Your task to perform on an android device: Show me productivity apps on the Play Store Image 0: 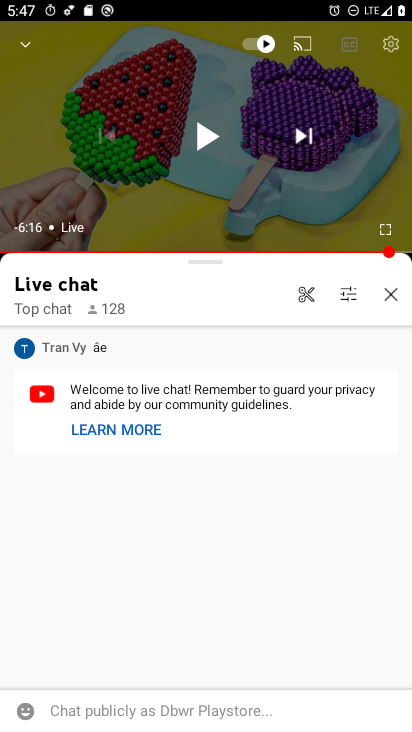
Step 0: press home button
Your task to perform on an android device: Show me productivity apps on the Play Store Image 1: 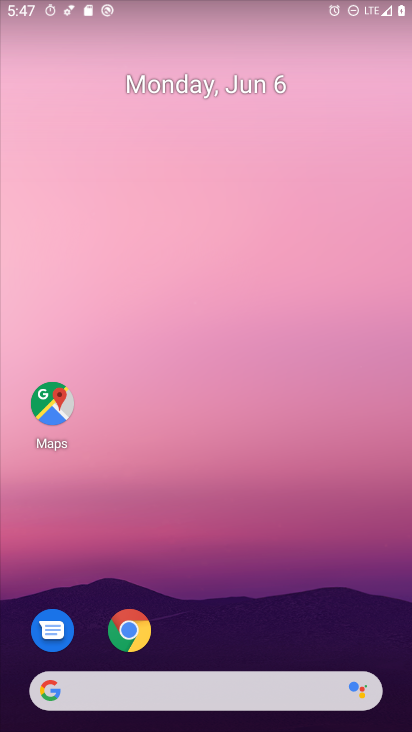
Step 1: drag from (285, 598) to (205, 88)
Your task to perform on an android device: Show me productivity apps on the Play Store Image 2: 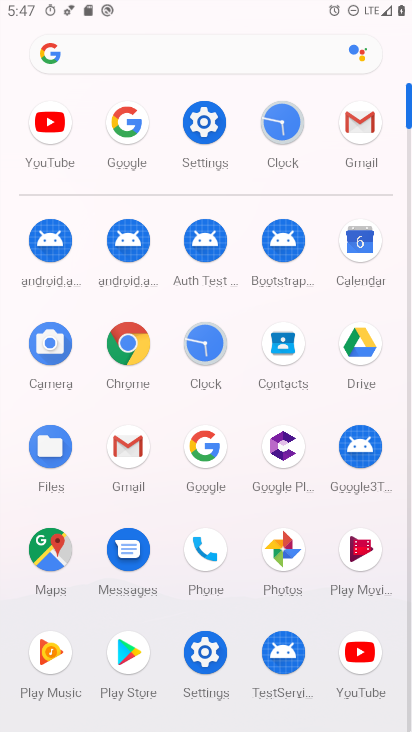
Step 2: click (117, 651)
Your task to perform on an android device: Show me productivity apps on the Play Store Image 3: 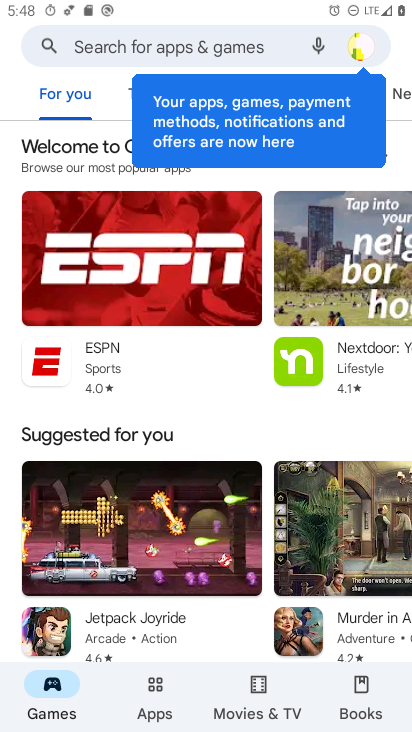
Step 3: click (136, 710)
Your task to perform on an android device: Show me productivity apps on the Play Store Image 4: 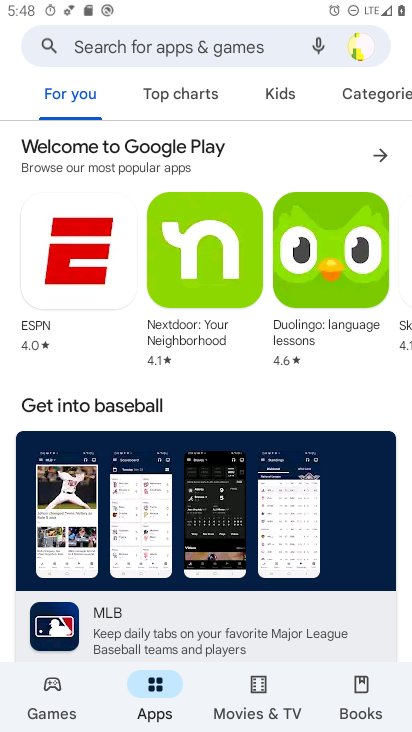
Step 4: click (175, 46)
Your task to perform on an android device: Show me productivity apps on the Play Store Image 5: 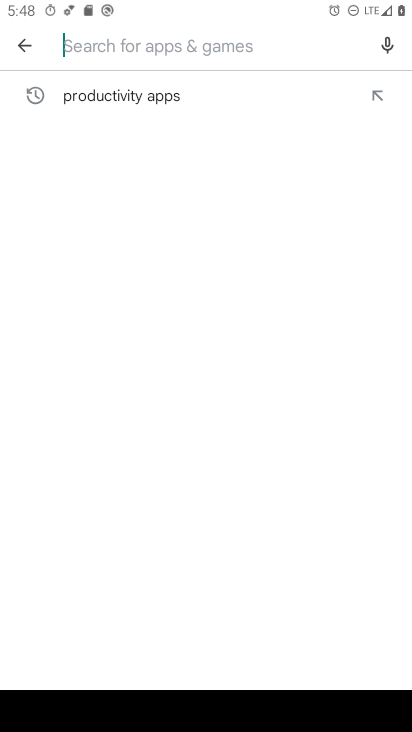
Step 5: click (150, 91)
Your task to perform on an android device: Show me productivity apps on the Play Store Image 6: 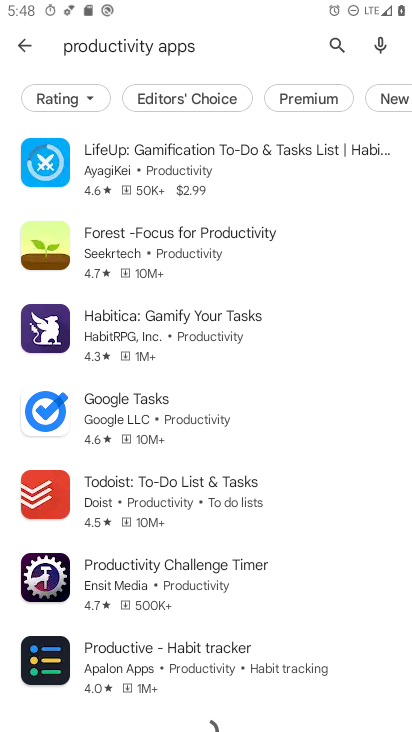
Step 6: task complete